Your task to perform on an android device: delete browsing data in the chrome app Image 0: 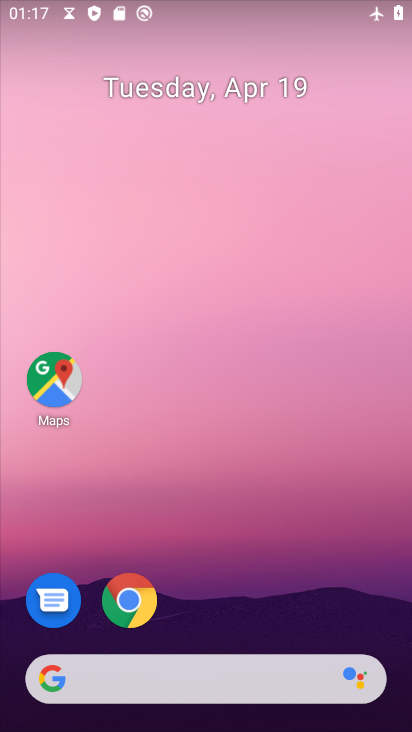
Step 0: drag from (234, 616) to (220, 50)
Your task to perform on an android device: delete browsing data in the chrome app Image 1: 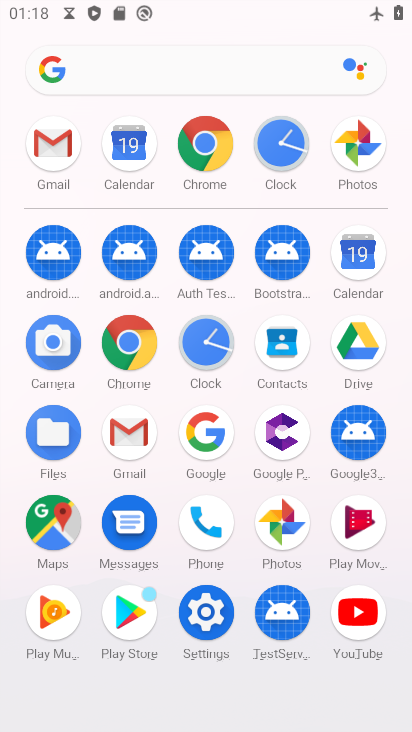
Step 1: click (142, 341)
Your task to perform on an android device: delete browsing data in the chrome app Image 2: 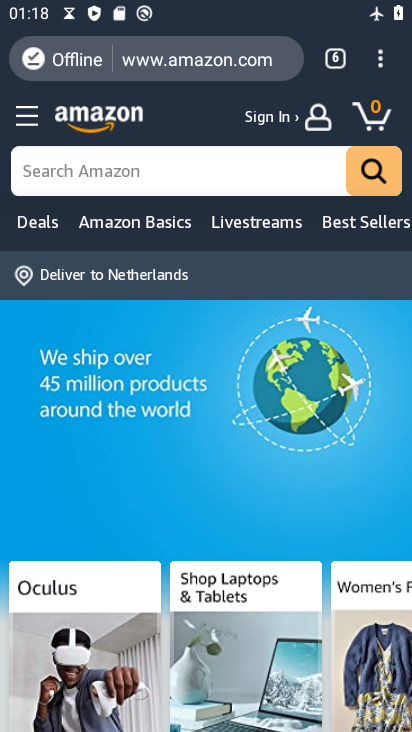
Step 2: click (373, 53)
Your task to perform on an android device: delete browsing data in the chrome app Image 3: 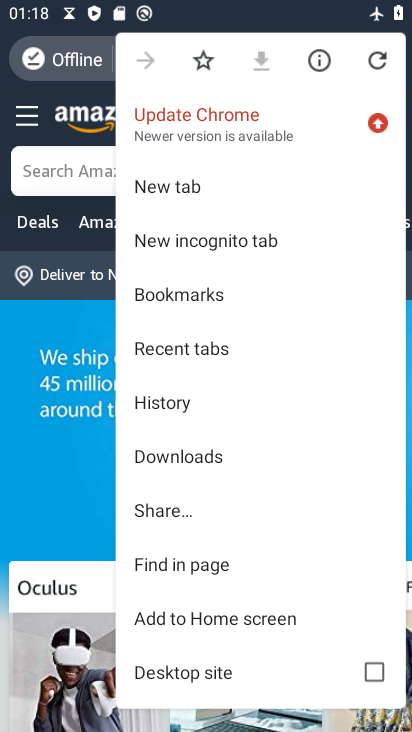
Step 3: drag from (288, 582) to (262, 327)
Your task to perform on an android device: delete browsing data in the chrome app Image 4: 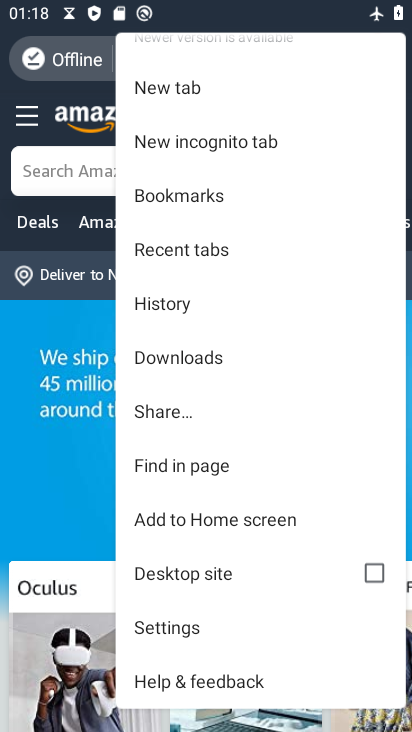
Step 4: click (178, 611)
Your task to perform on an android device: delete browsing data in the chrome app Image 5: 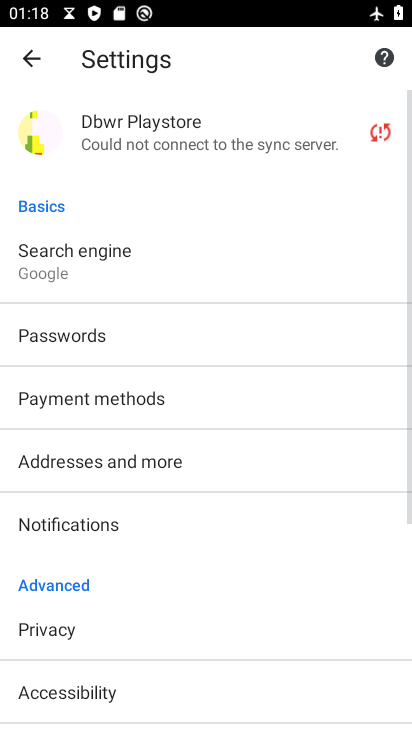
Step 5: click (75, 617)
Your task to perform on an android device: delete browsing data in the chrome app Image 6: 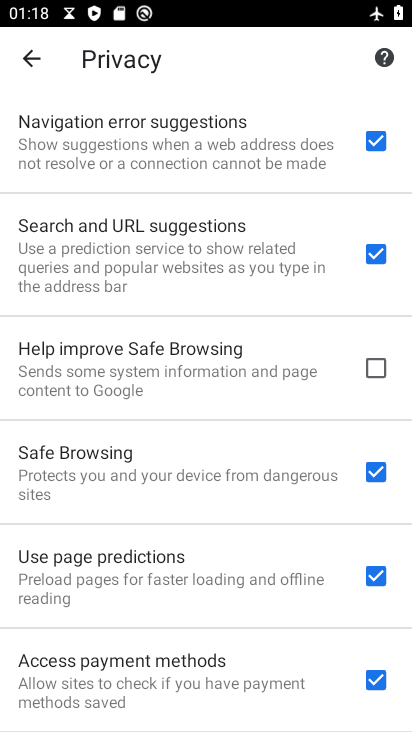
Step 6: drag from (132, 637) to (103, 121)
Your task to perform on an android device: delete browsing data in the chrome app Image 7: 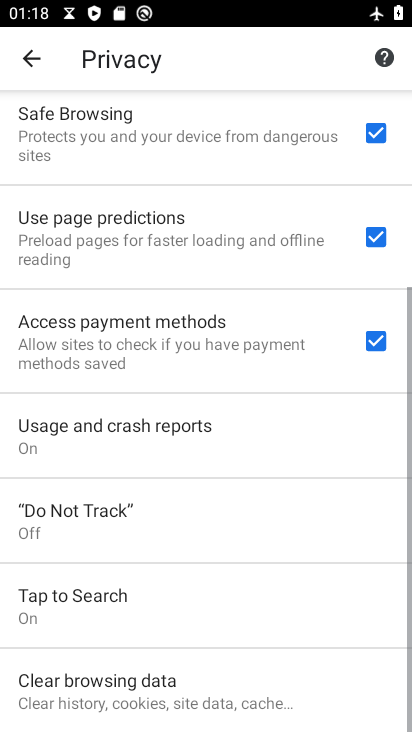
Step 7: click (163, 698)
Your task to perform on an android device: delete browsing data in the chrome app Image 8: 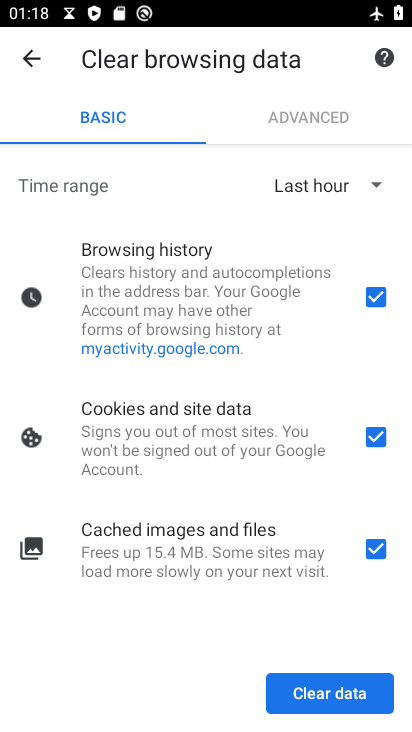
Step 8: click (307, 692)
Your task to perform on an android device: delete browsing data in the chrome app Image 9: 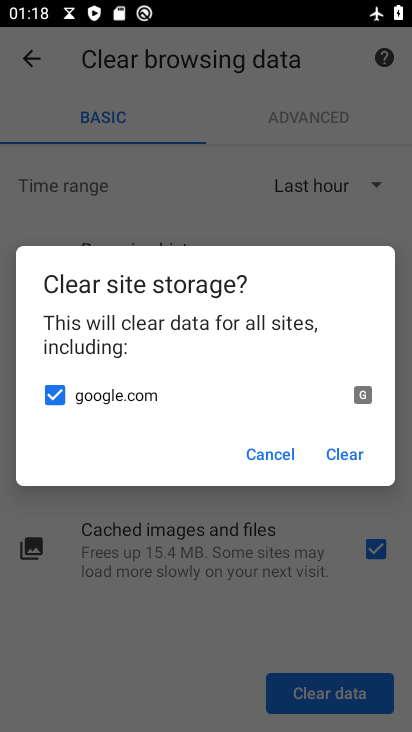
Step 9: click (353, 450)
Your task to perform on an android device: delete browsing data in the chrome app Image 10: 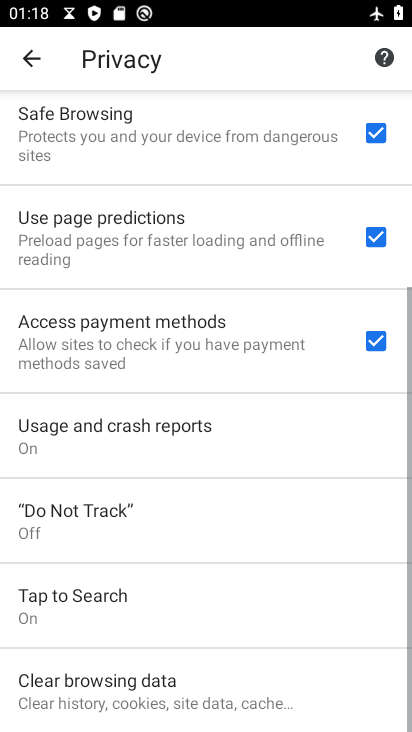
Step 10: task complete